Your task to perform on an android device: Open sound settings Image 0: 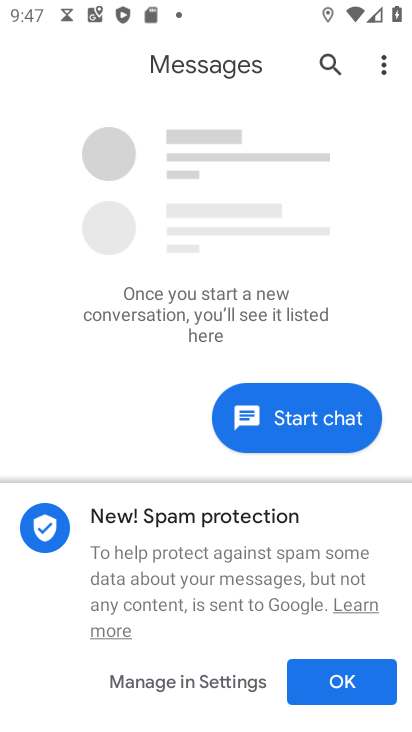
Step 0: press home button
Your task to perform on an android device: Open sound settings Image 1: 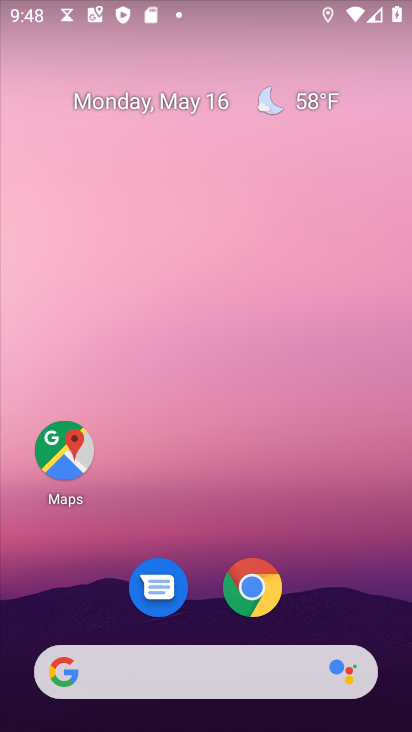
Step 1: drag from (315, 610) to (249, 84)
Your task to perform on an android device: Open sound settings Image 2: 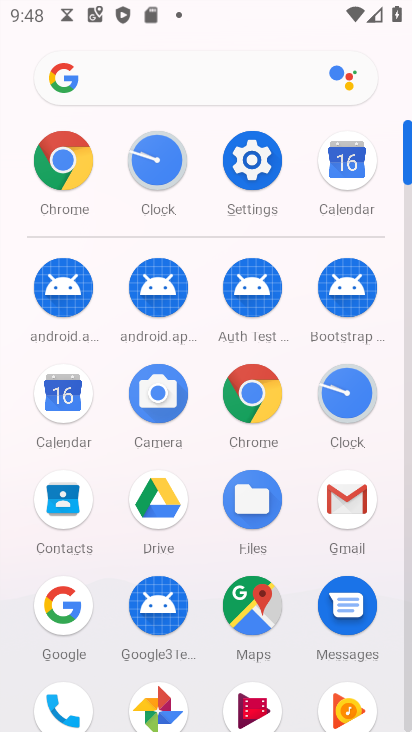
Step 2: click (258, 146)
Your task to perform on an android device: Open sound settings Image 3: 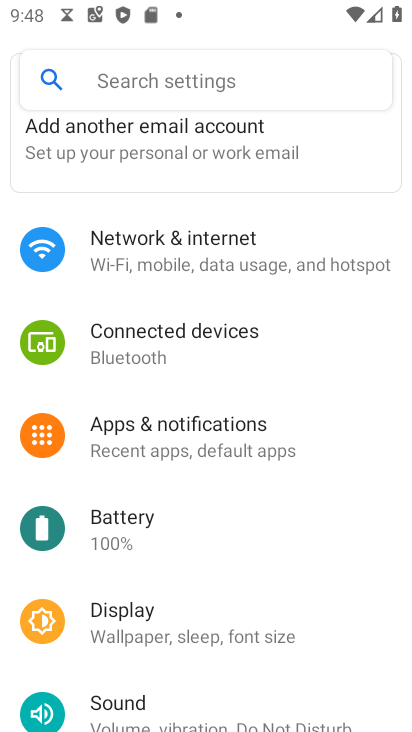
Step 3: drag from (254, 668) to (230, 515)
Your task to perform on an android device: Open sound settings Image 4: 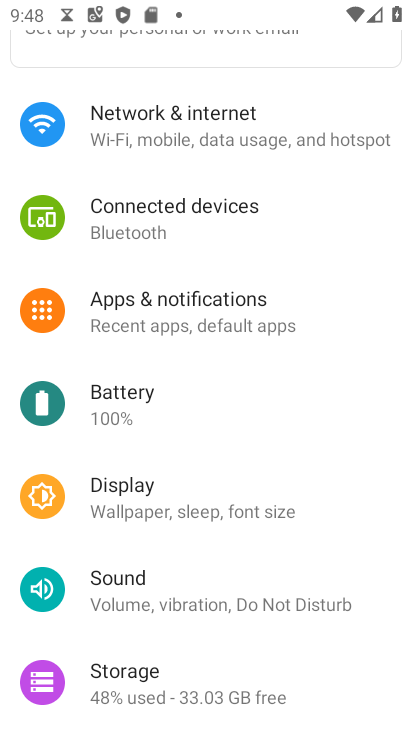
Step 4: click (239, 568)
Your task to perform on an android device: Open sound settings Image 5: 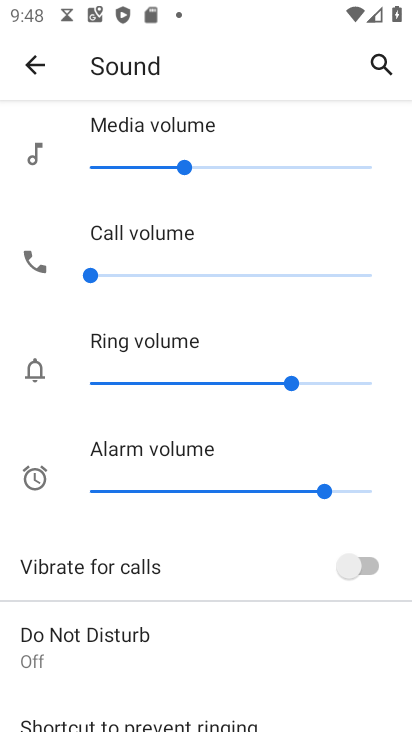
Step 5: task complete